Your task to perform on an android device: find photos in the google photos app Image 0: 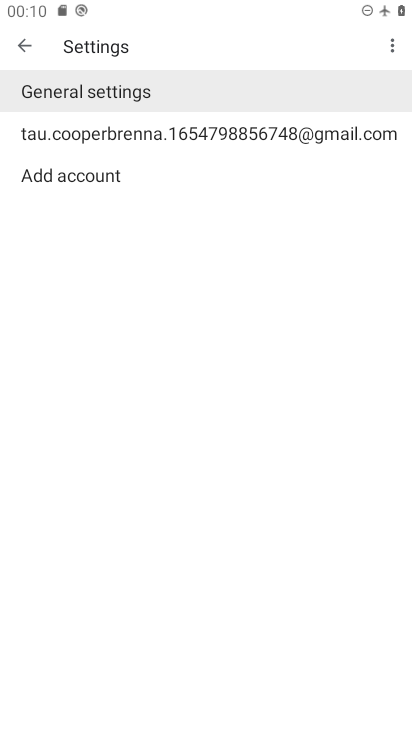
Step 0: press home button
Your task to perform on an android device: find photos in the google photos app Image 1: 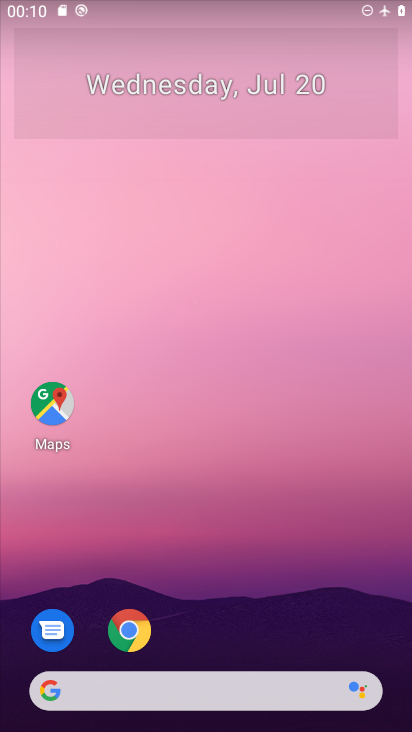
Step 1: drag from (261, 601) to (205, 166)
Your task to perform on an android device: find photos in the google photos app Image 2: 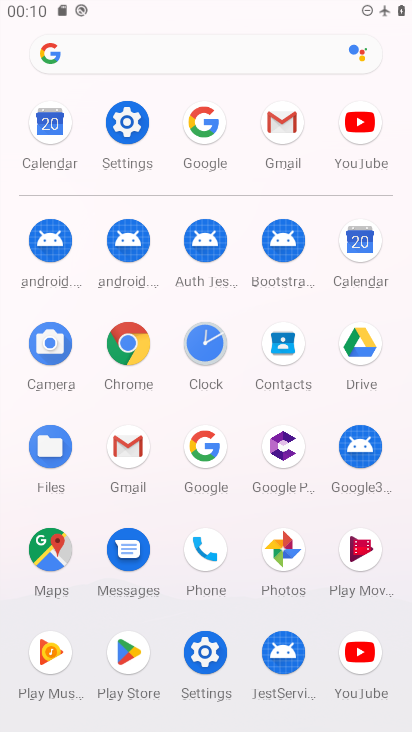
Step 2: click (276, 566)
Your task to perform on an android device: find photos in the google photos app Image 3: 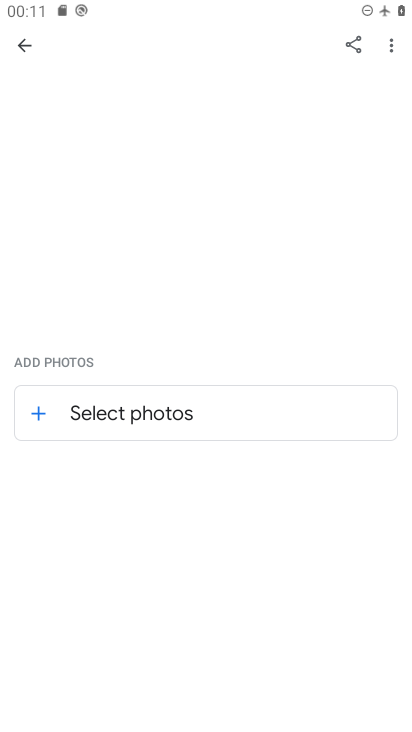
Step 3: click (19, 51)
Your task to perform on an android device: find photos in the google photos app Image 4: 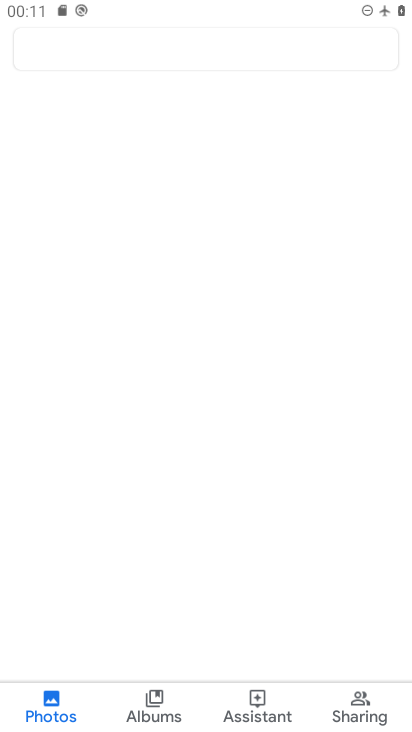
Step 4: click (19, 51)
Your task to perform on an android device: find photos in the google photos app Image 5: 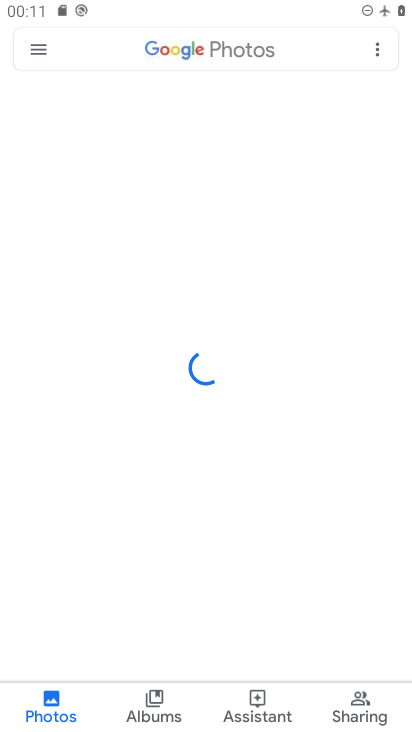
Step 5: click (205, 54)
Your task to perform on an android device: find photos in the google photos app Image 6: 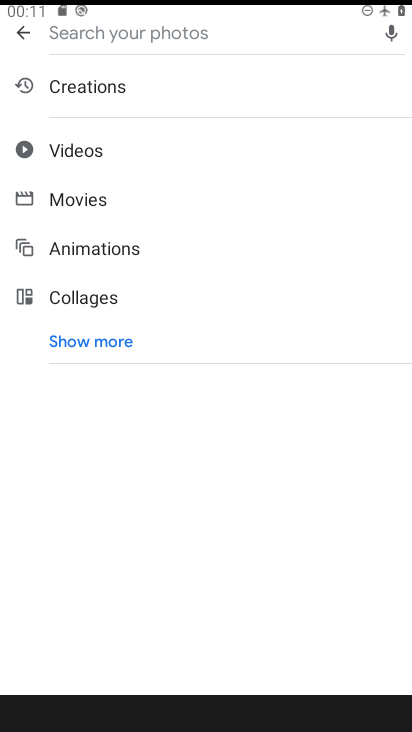
Step 6: click (129, 46)
Your task to perform on an android device: find photos in the google photos app Image 7: 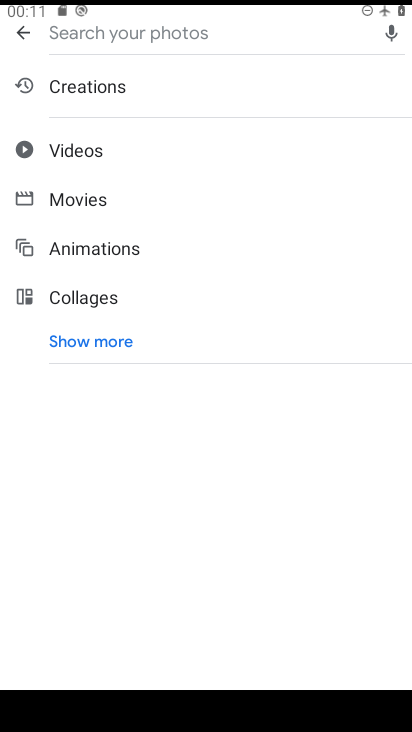
Step 7: type "aa"
Your task to perform on an android device: find photos in the google photos app Image 8: 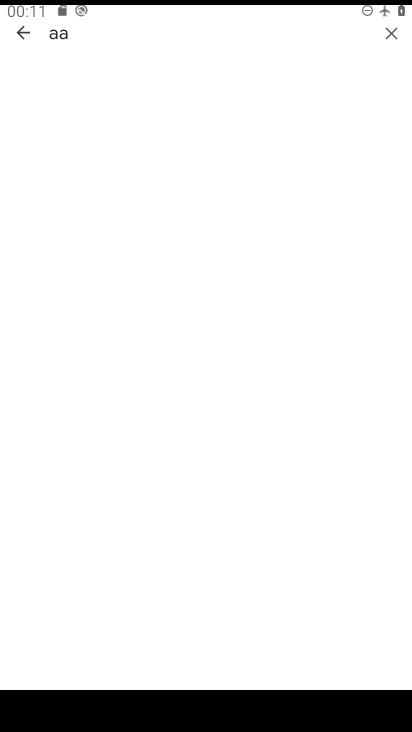
Step 8: task complete